Your task to perform on an android device: Go to display settings Image 0: 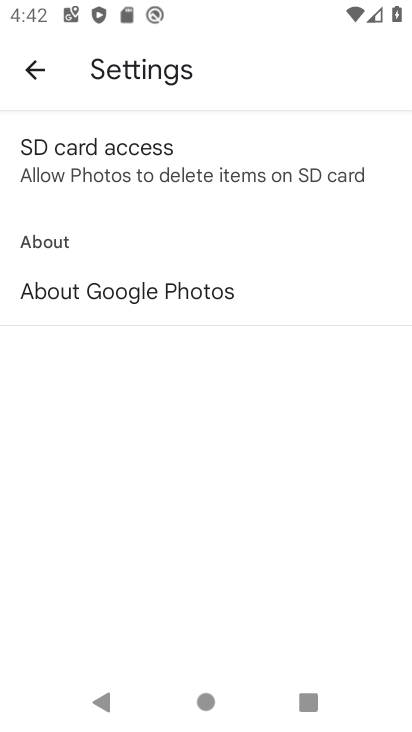
Step 0: press home button
Your task to perform on an android device: Go to display settings Image 1: 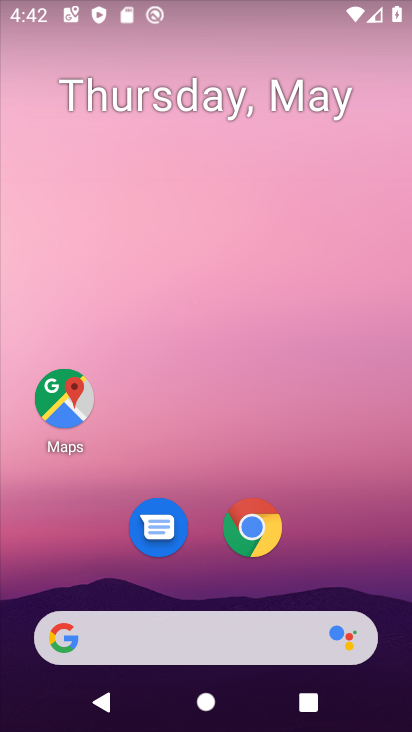
Step 1: drag from (370, 535) to (341, 118)
Your task to perform on an android device: Go to display settings Image 2: 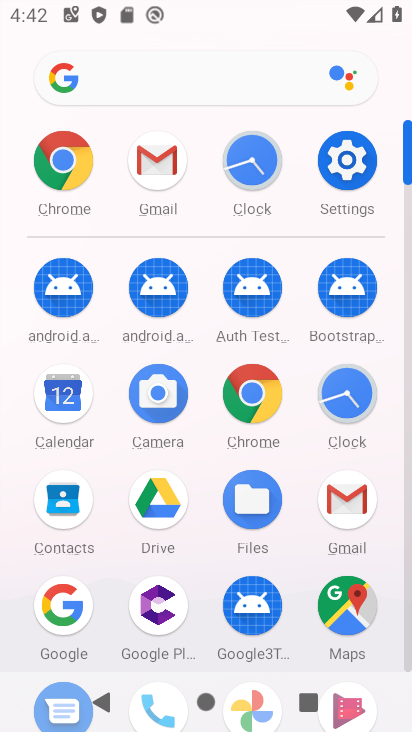
Step 2: click (347, 150)
Your task to perform on an android device: Go to display settings Image 3: 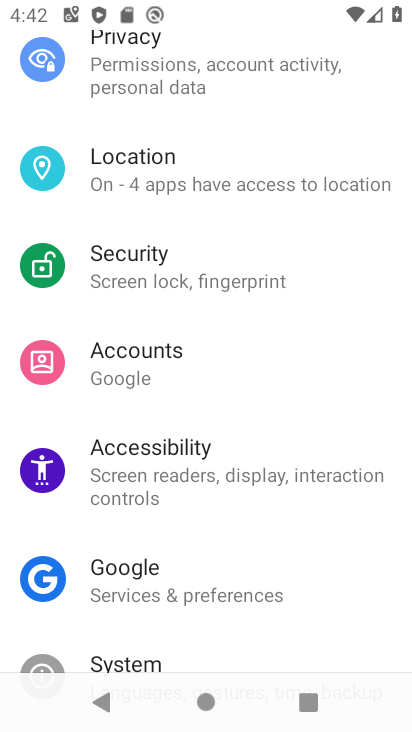
Step 3: drag from (232, 183) to (203, 483)
Your task to perform on an android device: Go to display settings Image 4: 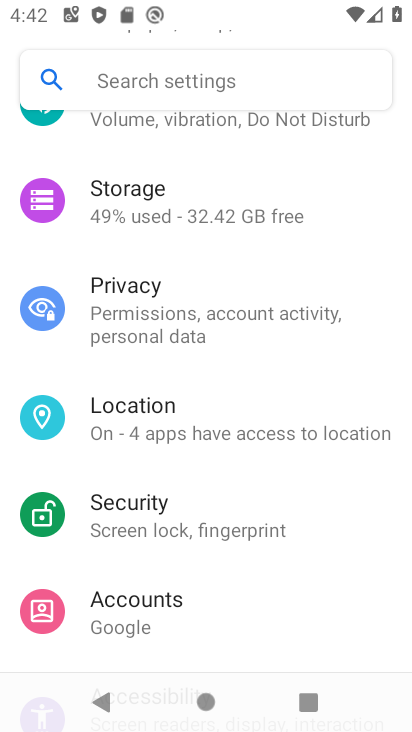
Step 4: drag from (203, 290) to (221, 517)
Your task to perform on an android device: Go to display settings Image 5: 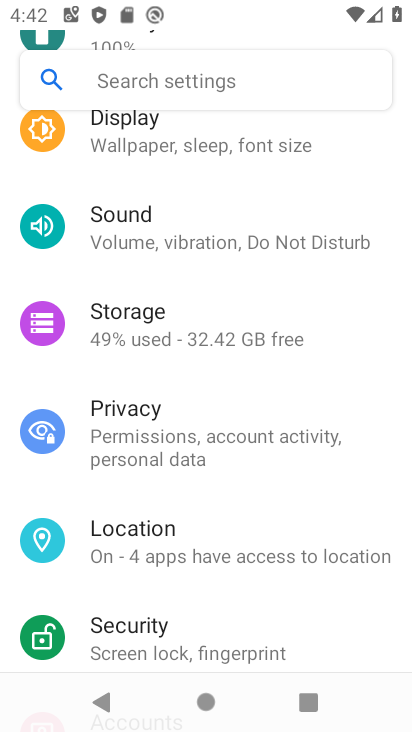
Step 5: click (171, 133)
Your task to perform on an android device: Go to display settings Image 6: 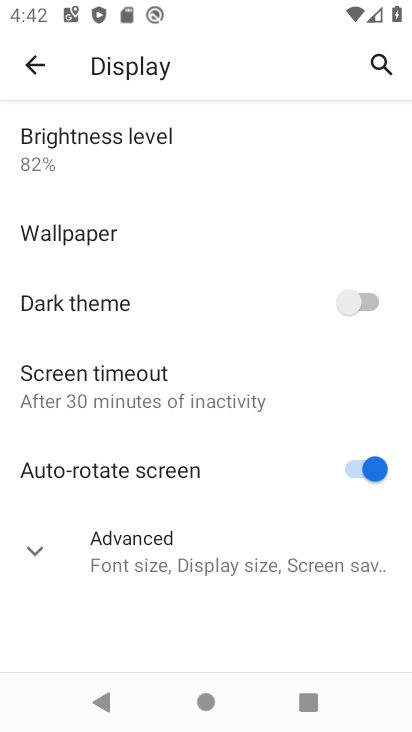
Step 6: task complete